Your task to perform on an android device: change keyboard looks Image 0: 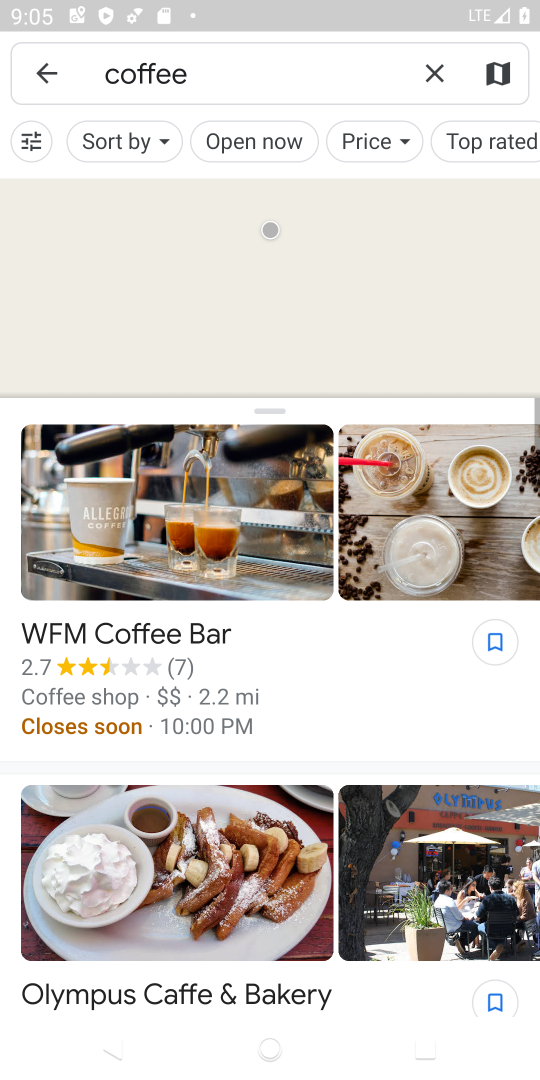
Step 0: press home button
Your task to perform on an android device: change keyboard looks Image 1: 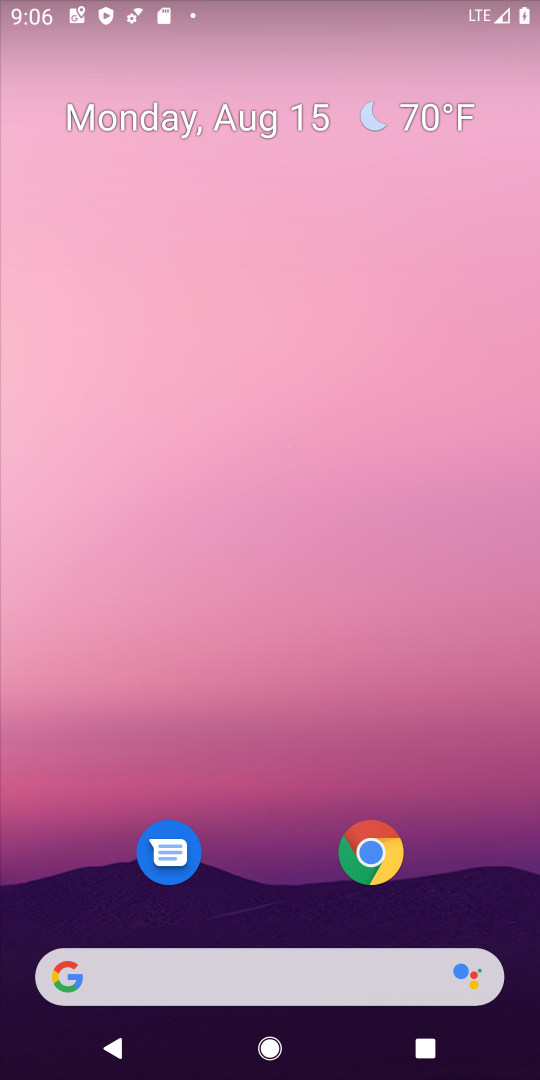
Step 1: drag from (253, 978) to (358, 229)
Your task to perform on an android device: change keyboard looks Image 2: 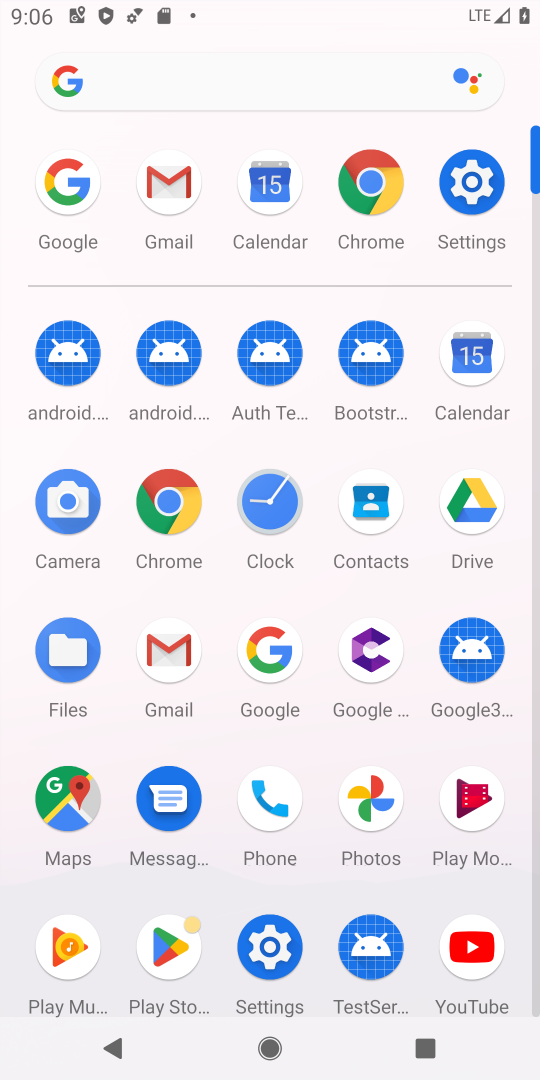
Step 2: click (471, 184)
Your task to perform on an android device: change keyboard looks Image 3: 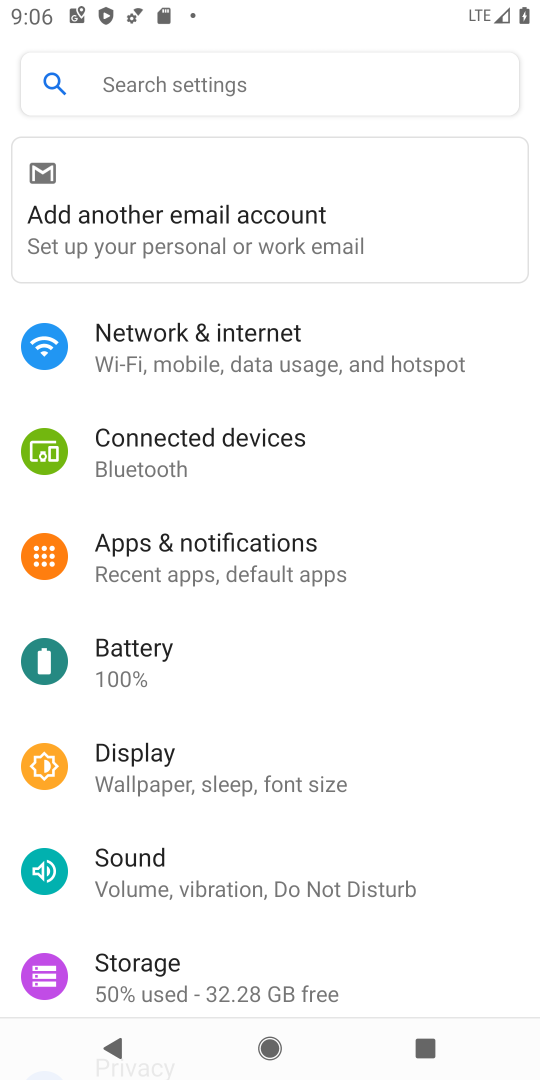
Step 3: drag from (187, 604) to (311, 388)
Your task to perform on an android device: change keyboard looks Image 4: 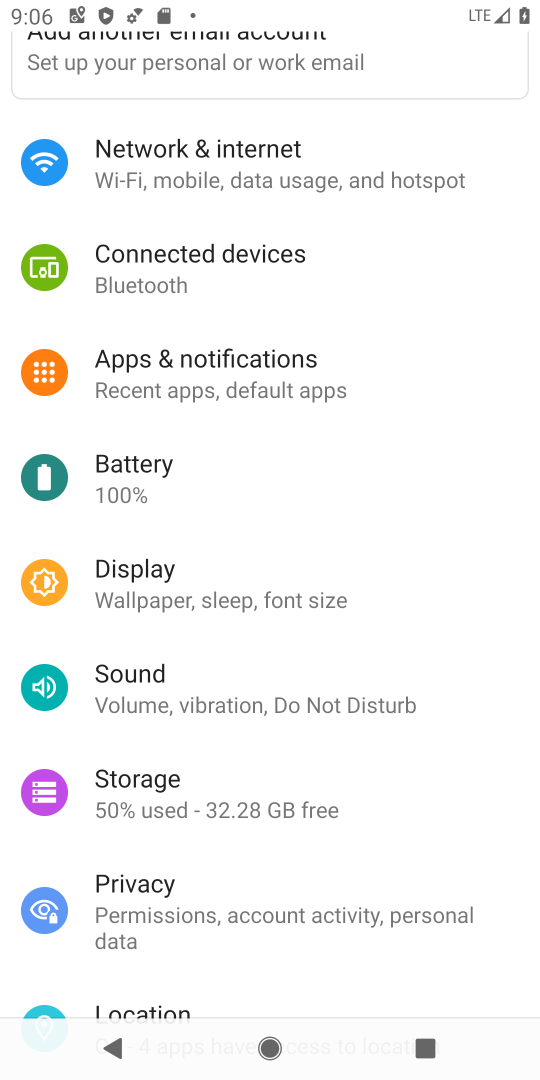
Step 4: drag from (189, 643) to (297, 487)
Your task to perform on an android device: change keyboard looks Image 5: 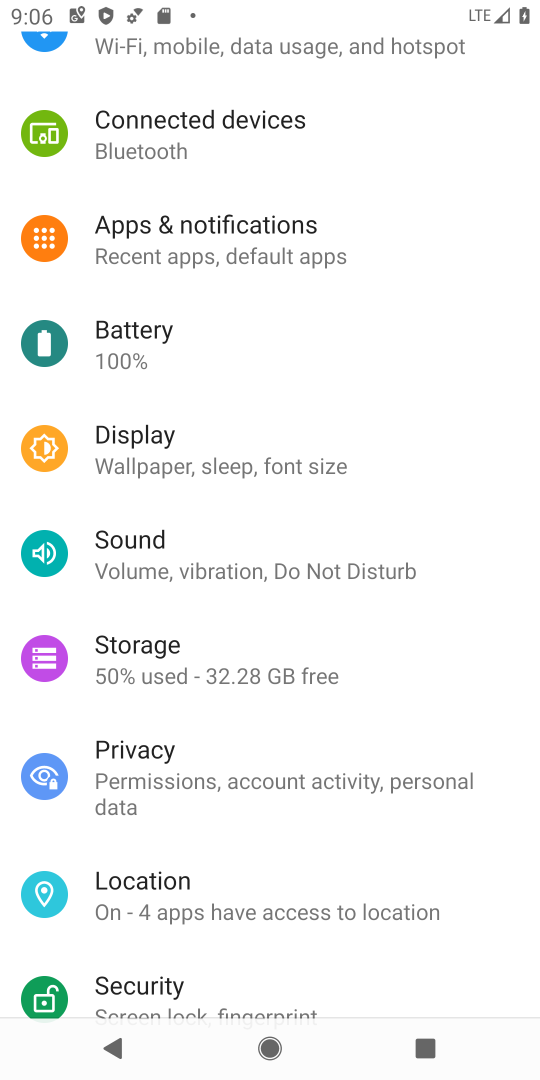
Step 5: drag from (210, 732) to (365, 508)
Your task to perform on an android device: change keyboard looks Image 6: 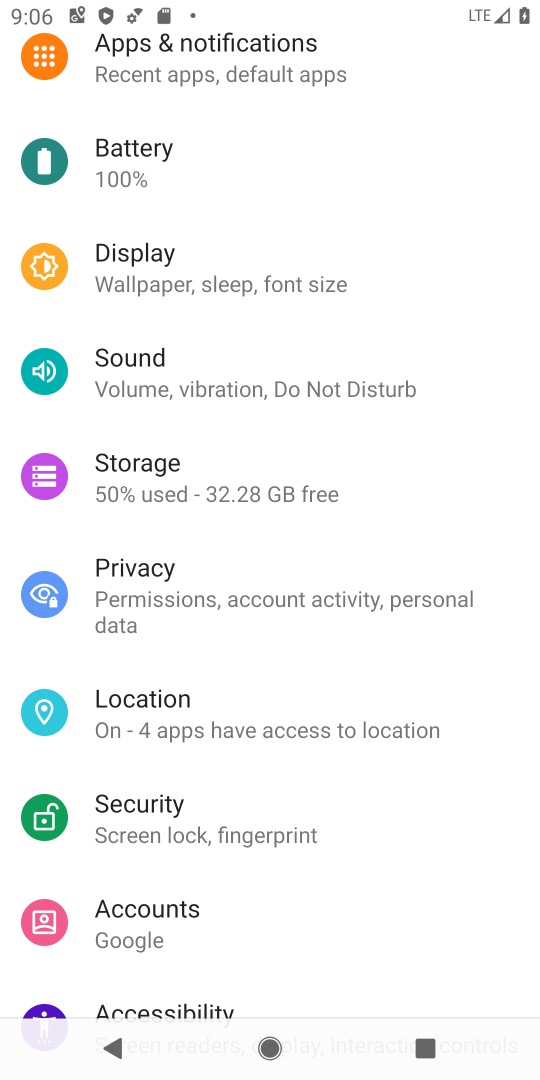
Step 6: drag from (170, 775) to (283, 606)
Your task to perform on an android device: change keyboard looks Image 7: 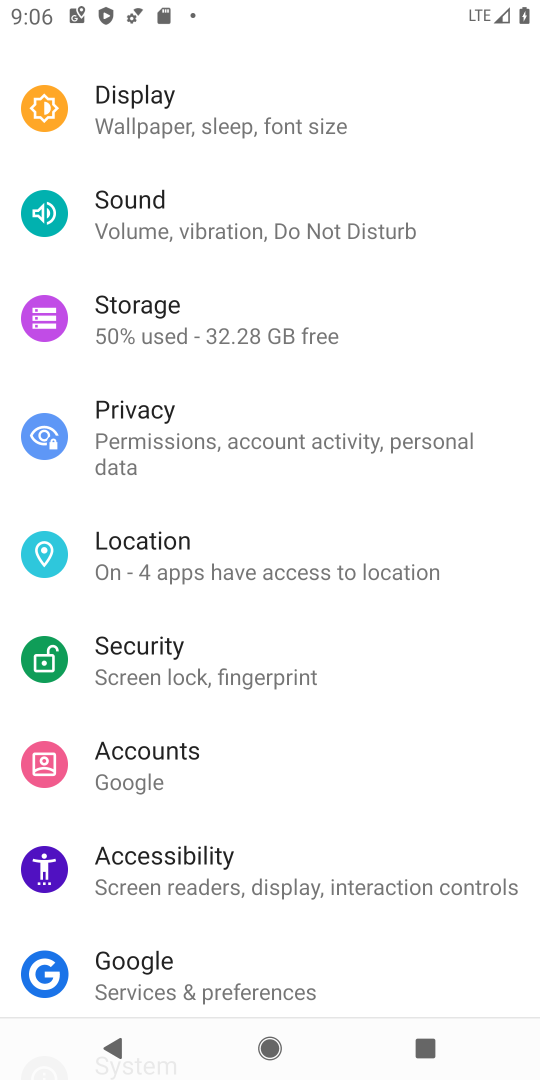
Step 7: drag from (197, 780) to (371, 575)
Your task to perform on an android device: change keyboard looks Image 8: 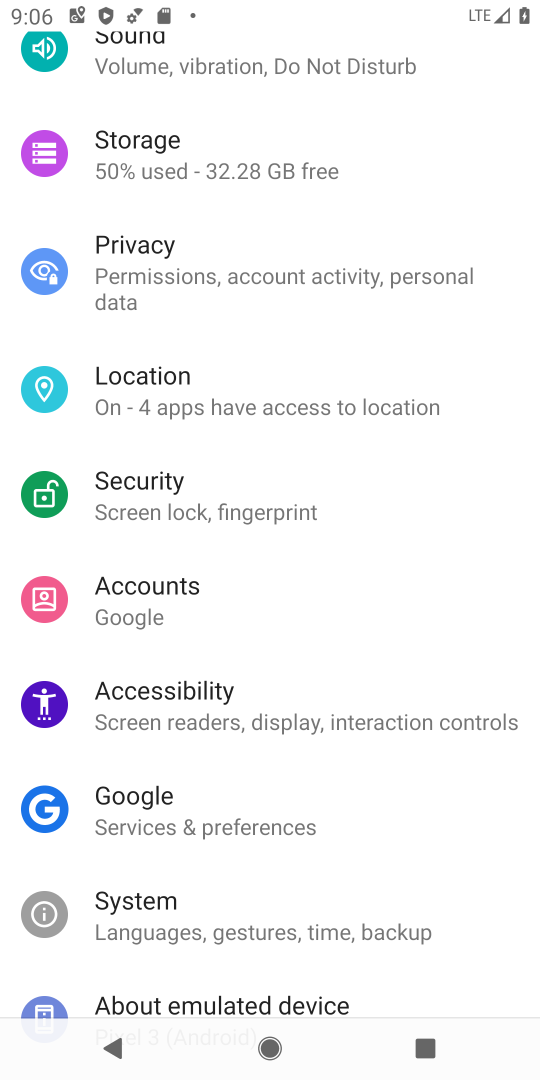
Step 8: click (209, 925)
Your task to perform on an android device: change keyboard looks Image 9: 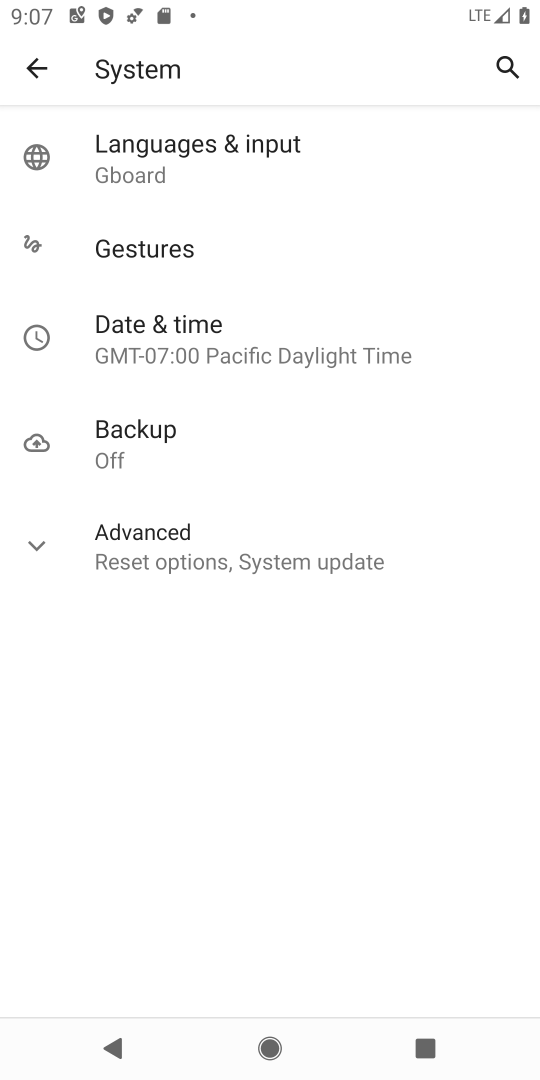
Step 9: click (273, 147)
Your task to perform on an android device: change keyboard looks Image 10: 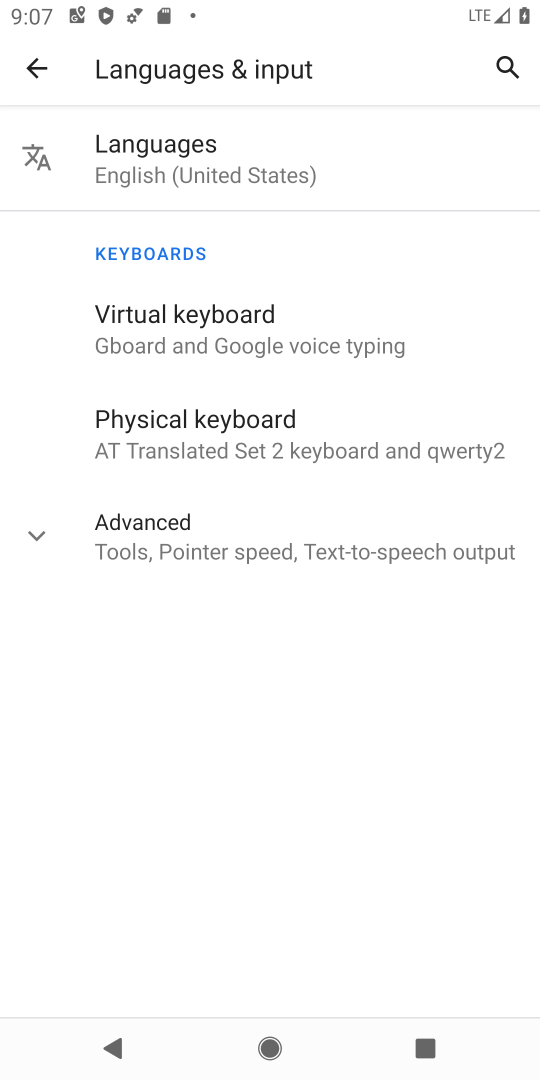
Step 10: click (185, 333)
Your task to perform on an android device: change keyboard looks Image 11: 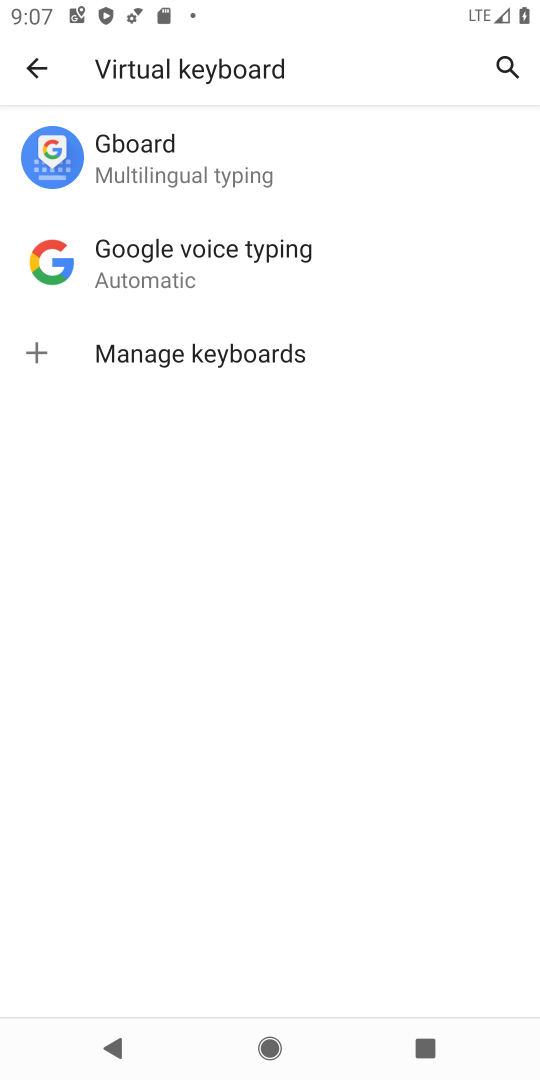
Step 11: click (121, 166)
Your task to perform on an android device: change keyboard looks Image 12: 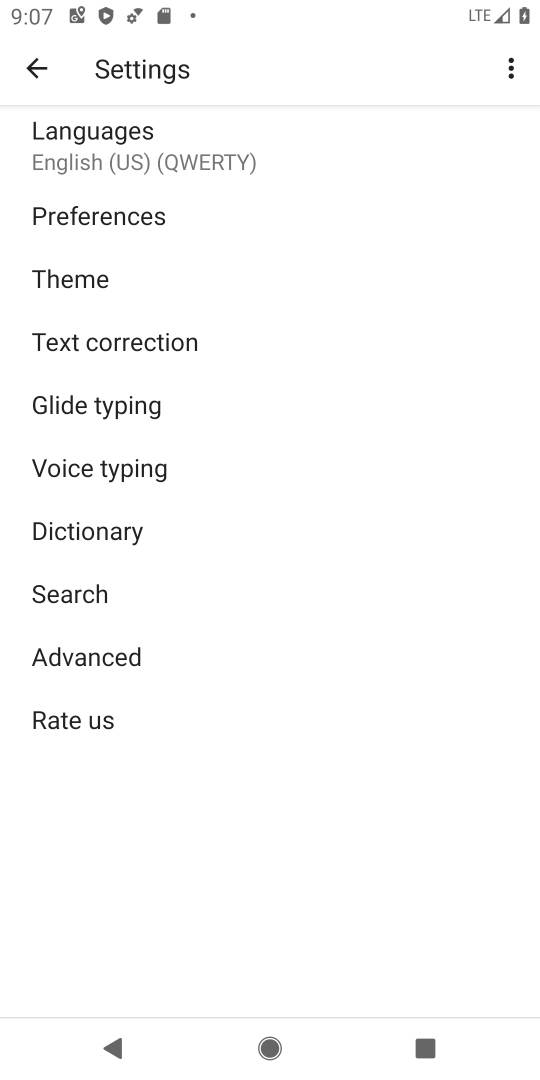
Step 12: click (106, 291)
Your task to perform on an android device: change keyboard looks Image 13: 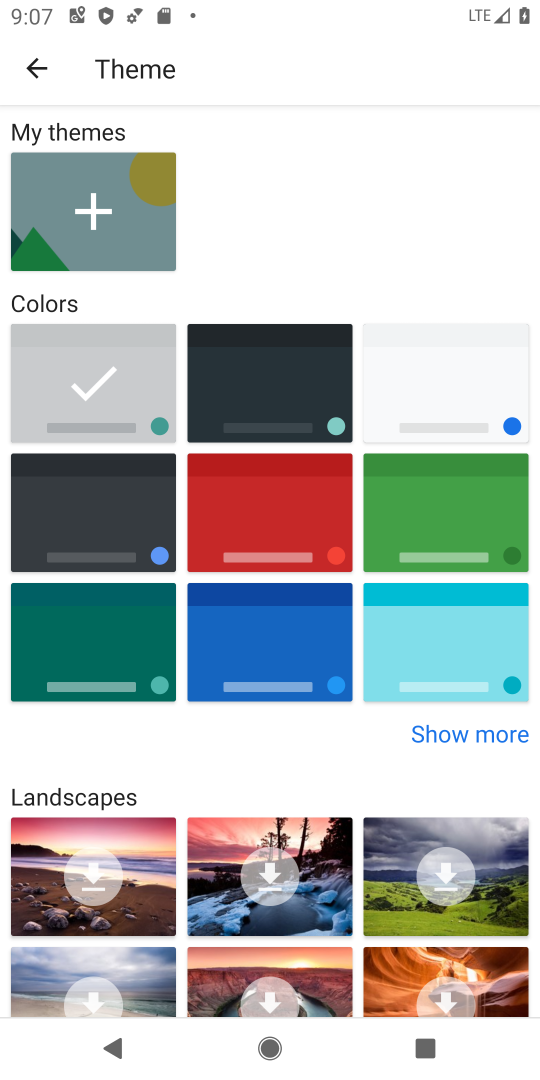
Step 13: click (277, 377)
Your task to perform on an android device: change keyboard looks Image 14: 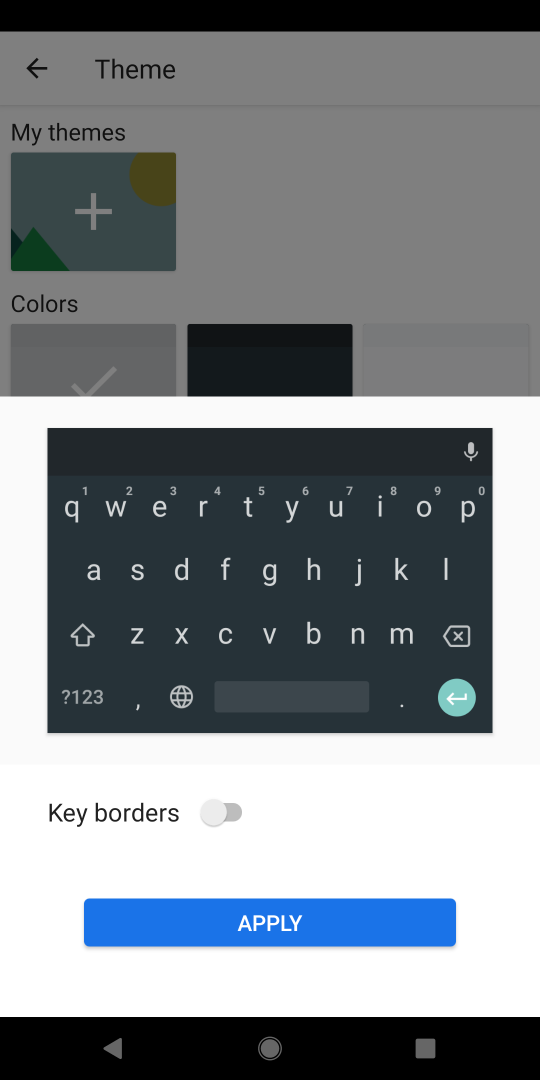
Step 14: click (230, 804)
Your task to perform on an android device: change keyboard looks Image 15: 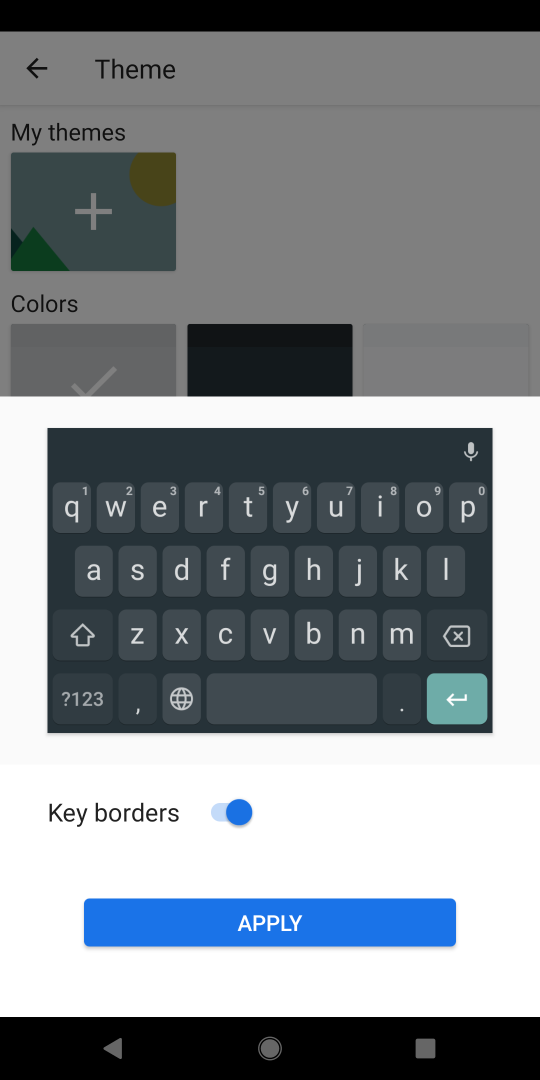
Step 15: click (272, 924)
Your task to perform on an android device: change keyboard looks Image 16: 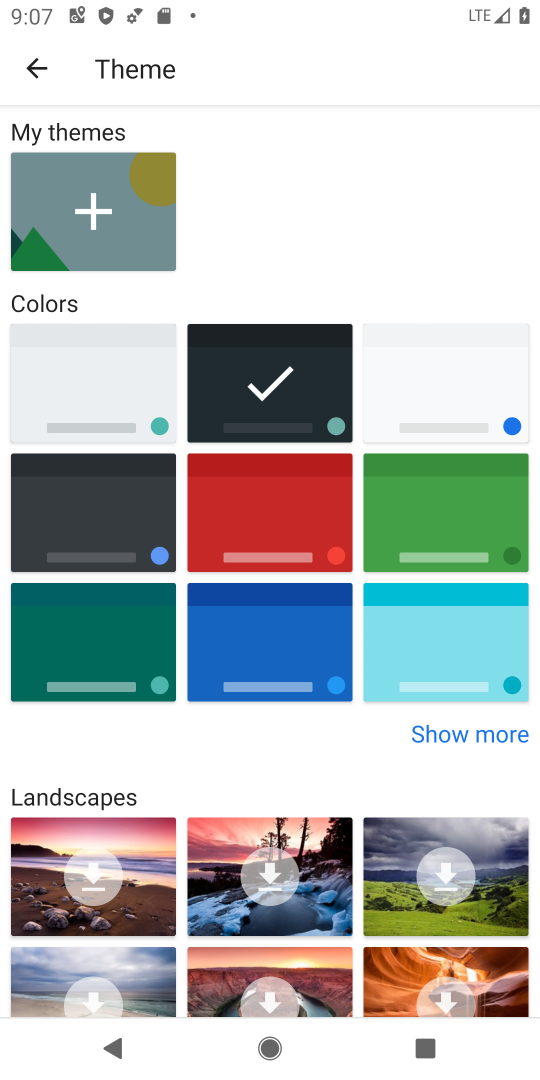
Step 16: task complete